Your task to perform on an android device: Open Google Chrome and click the shortcut for Amazon.com Image 0: 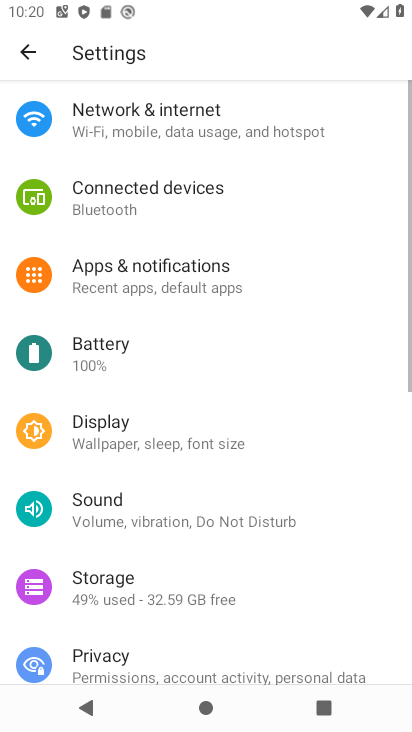
Step 0: press home button
Your task to perform on an android device: Open Google Chrome and click the shortcut for Amazon.com Image 1: 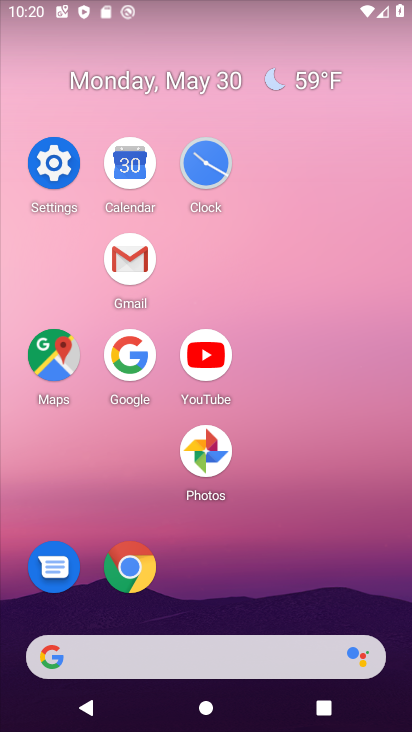
Step 1: click (137, 565)
Your task to perform on an android device: Open Google Chrome and click the shortcut for Amazon.com Image 2: 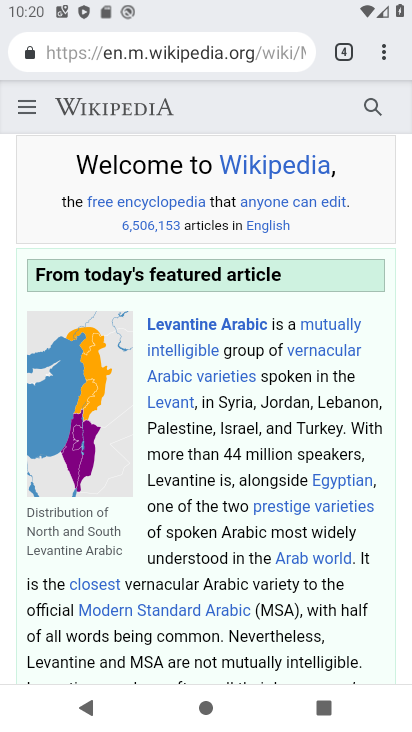
Step 2: click (353, 38)
Your task to perform on an android device: Open Google Chrome and click the shortcut for Amazon.com Image 3: 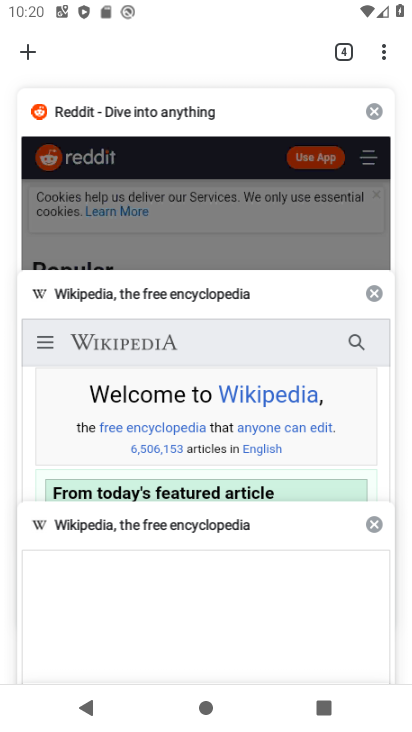
Step 3: drag from (164, 152) to (141, 496)
Your task to perform on an android device: Open Google Chrome and click the shortcut for Amazon.com Image 4: 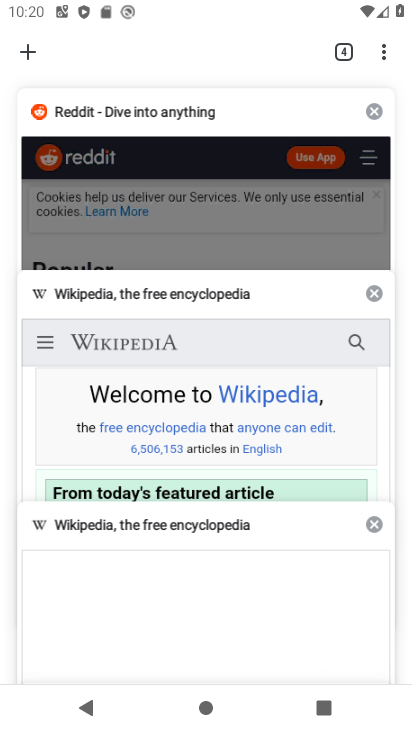
Step 4: drag from (159, 451) to (185, 139)
Your task to perform on an android device: Open Google Chrome and click the shortcut for Amazon.com Image 5: 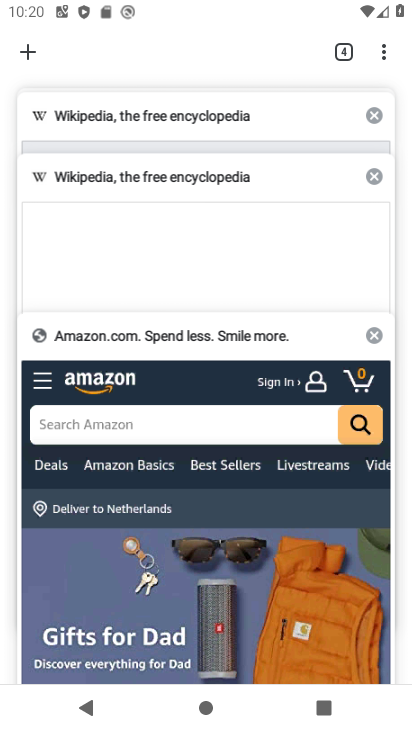
Step 5: click (169, 384)
Your task to perform on an android device: Open Google Chrome and click the shortcut for Amazon.com Image 6: 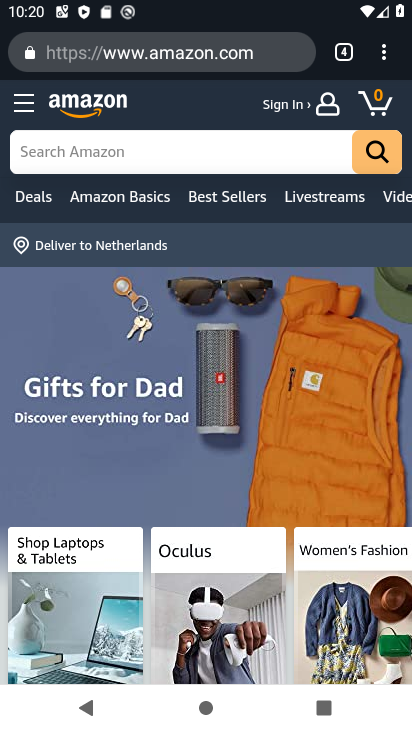
Step 6: click (385, 50)
Your task to perform on an android device: Open Google Chrome and click the shortcut for Amazon.com Image 7: 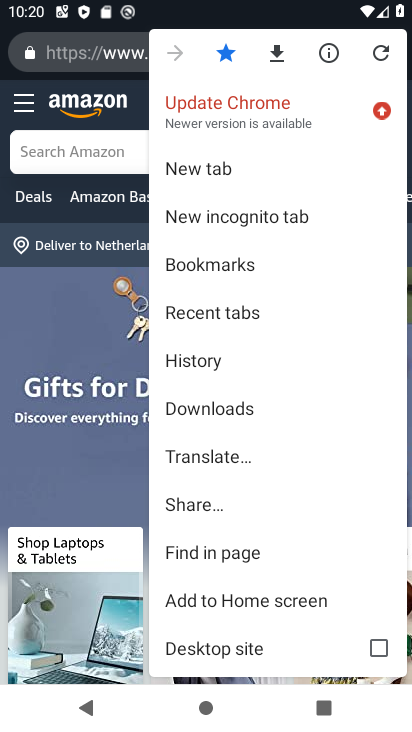
Step 7: drag from (246, 545) to (315, 181)
Your task to perform on an android device: Open Google Chrome and click the shortcut for Amazon.com Image 8: 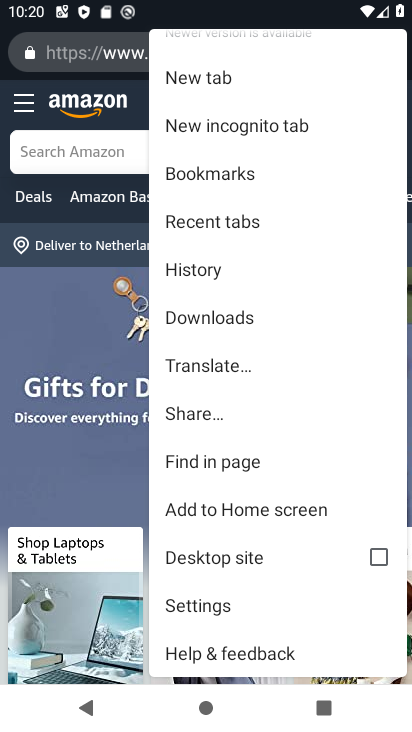
Step 8: click (253, 509)
Your task to perform on an android device: Open Google Chrome and click the shortcut for Amazon.com Image 9: 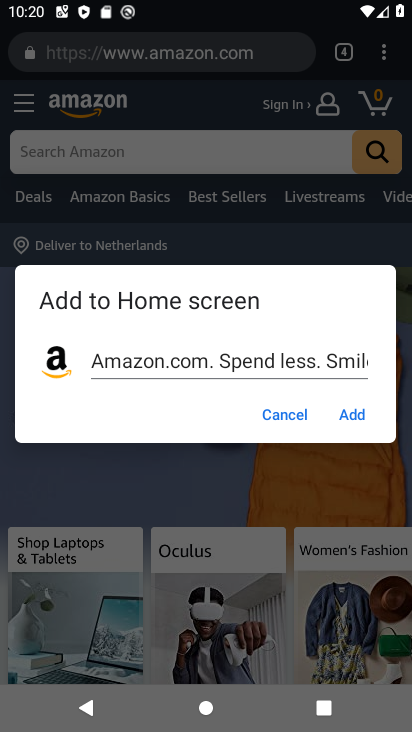
Step 9: click (346, 415)
Your task to perform on an android device: Open Google Chrome and click the shortcut for Amazon.com Image 10: 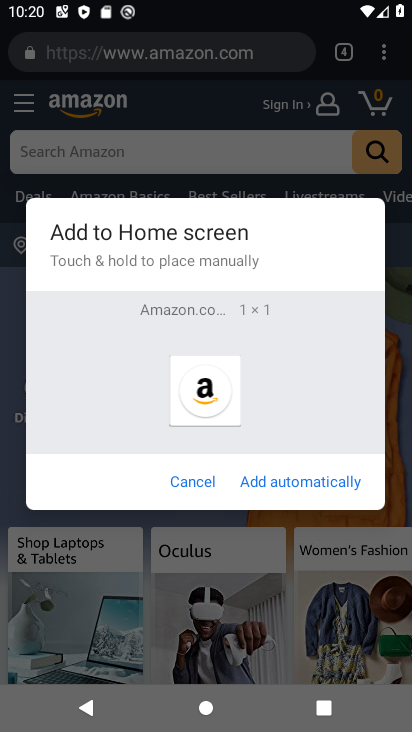
Step 10: click (338, 490)
Your task to perform on an android device: Open Google Chrome and click the shortcut for Amazon.com Image 11: 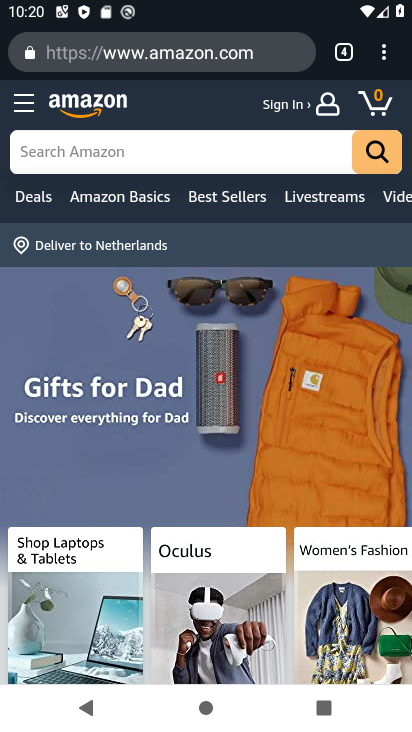
Step 11: task complete